Your task to perform on an android device: stop showing notifications on the lock screen Image 0: 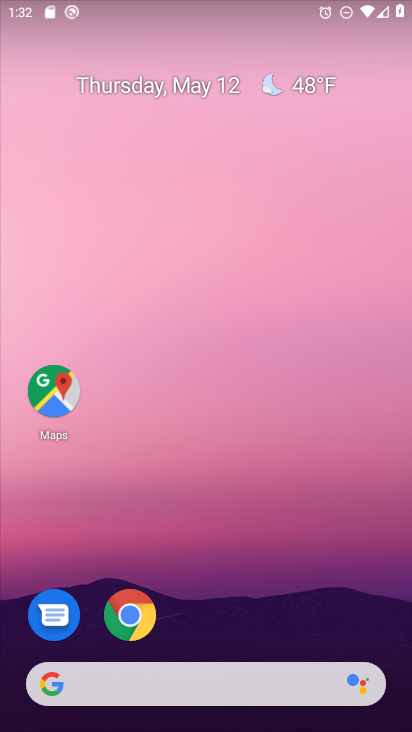
Step 0: drag from (217, 675) to (352, 0)
Your task to perform on an android device: stop showing notifications on the lock screen Image 1: 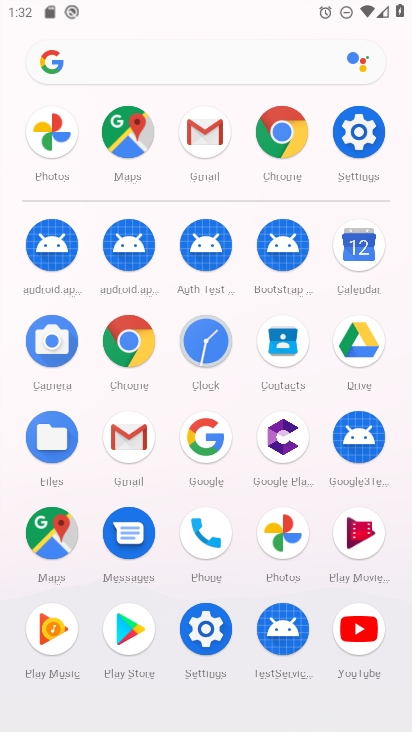
Step 1: click (360, 135)
Your task to perform on an android device: stop showing notifications on the lock screen Image 2: 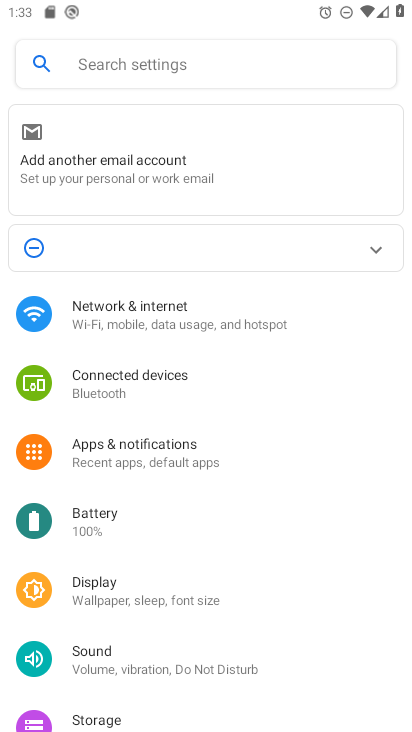
Step 2: click (182, 446)
Your task to perform on an android device: stop showing notifications on the lock screen Image 3: 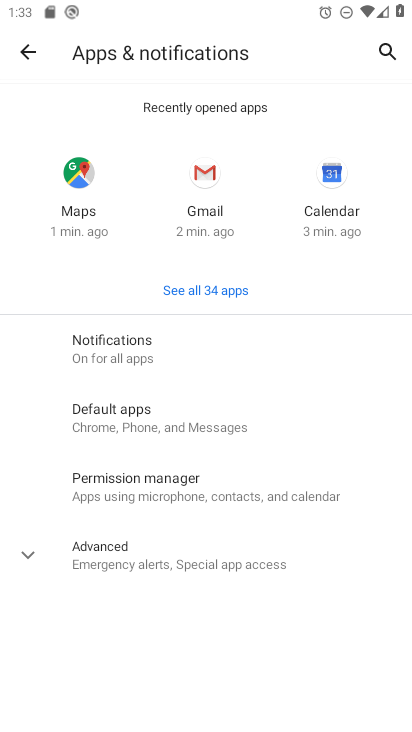
Step 3: click (100, 556)
Your task to perform on an android device: stop showing notifications on the lock screen Image 4: 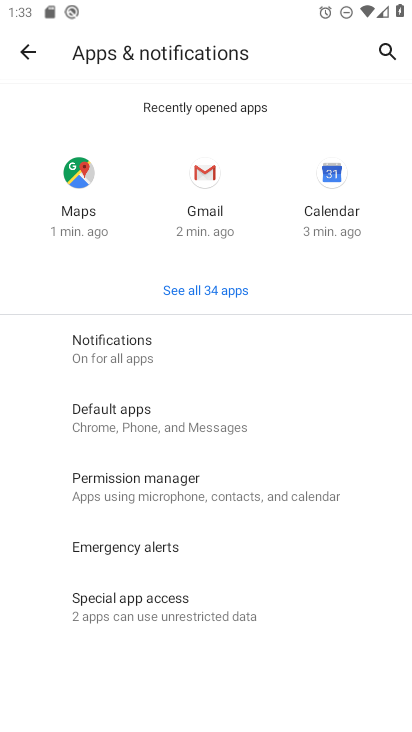
Step 4: click (139, 348)
Your task to perform on an android device: stop showing notifications on the lock screen Image 5: 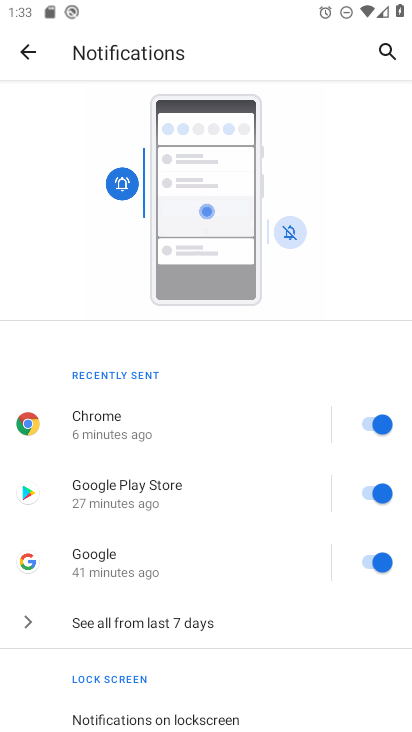
Step 5: drag from (204, 651) to (229, 250)
Your task to perform on an android device: stop showing notifications on the lock screen Image 6: 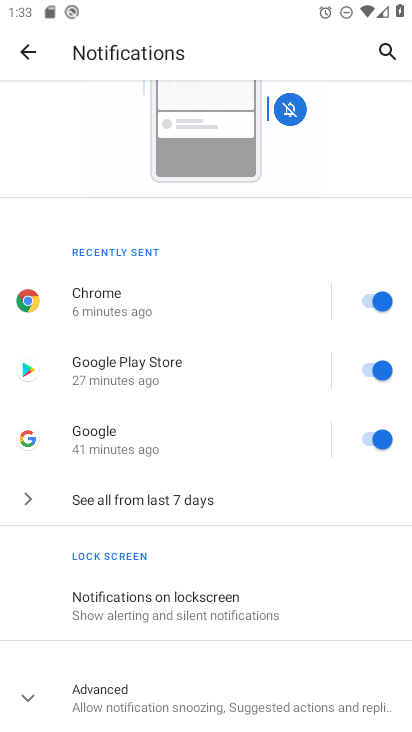
Step 6: click (179, 605)
Your task to perform on an android device: stop showing notifications on the lock screen Image 7: 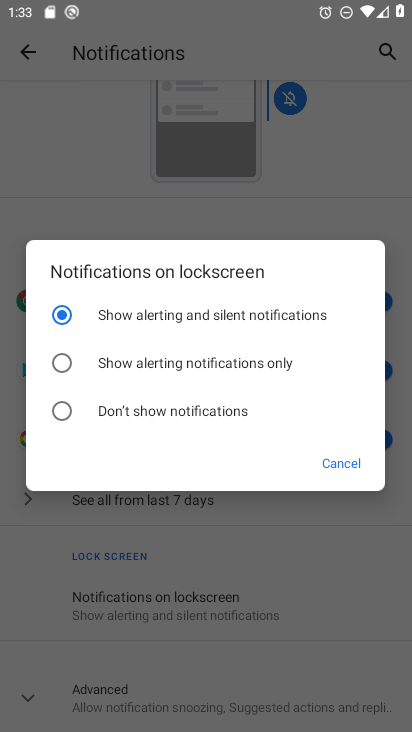
Step 7: click (152, 365)
Your task to perform on an android device: stop showing notifications on the lock screen Image 8: 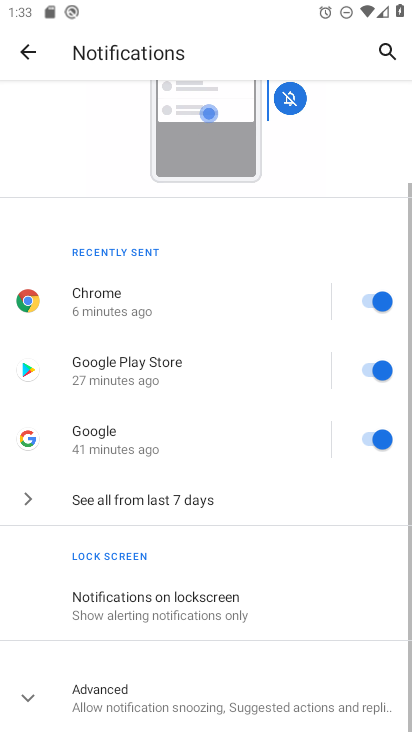
Step 8: task complete